Your task to perform on an android device: turn off improve location accuracy Image 0: 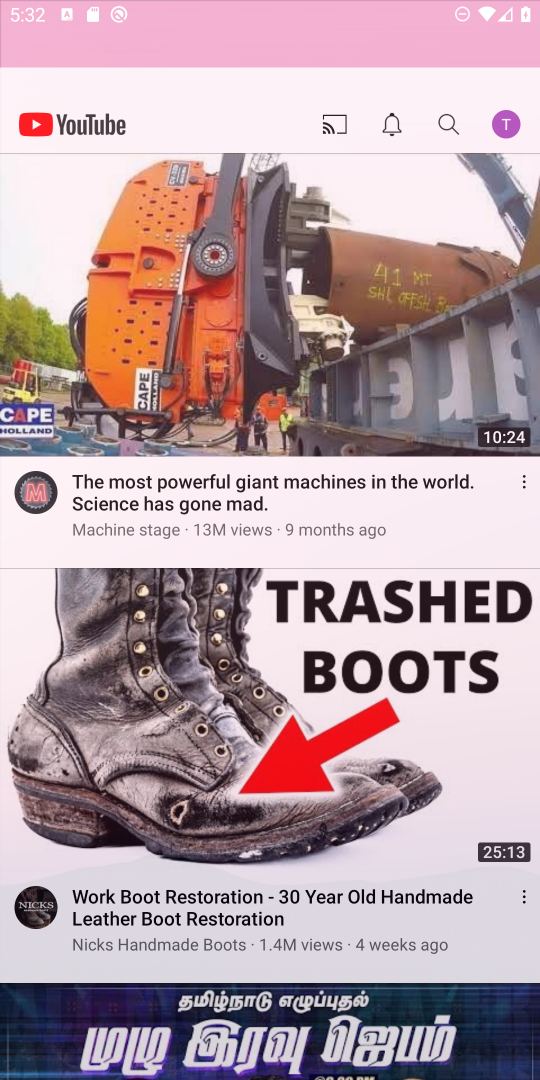
Step 0: drag from (373, 258) to (444, 31)
Your task to perform on an android device: turn off improve location accuracy Image 1: 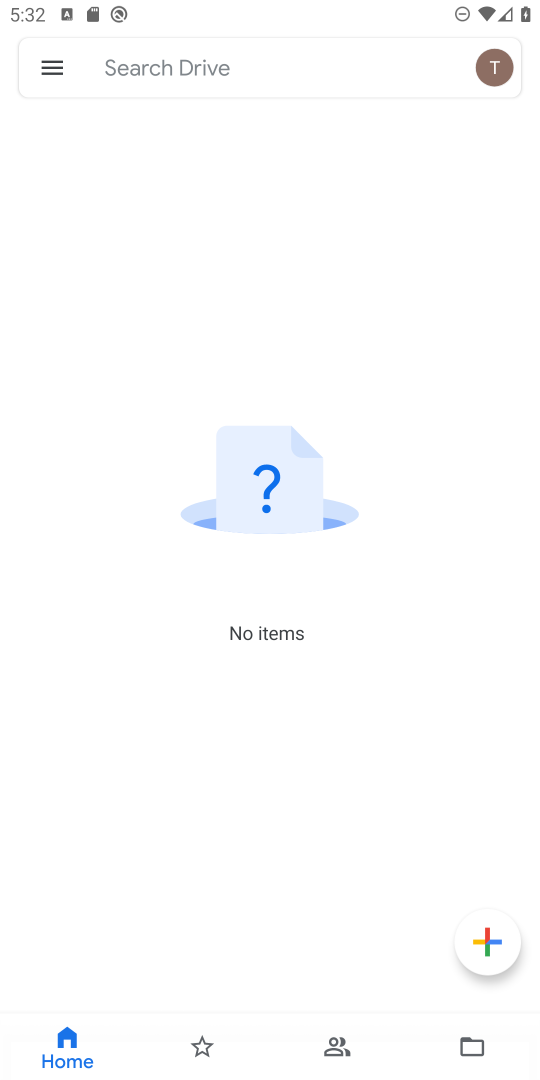
Step 1: press home button
Your task to perform on an android device: turn off improve location accuracy Image 2: 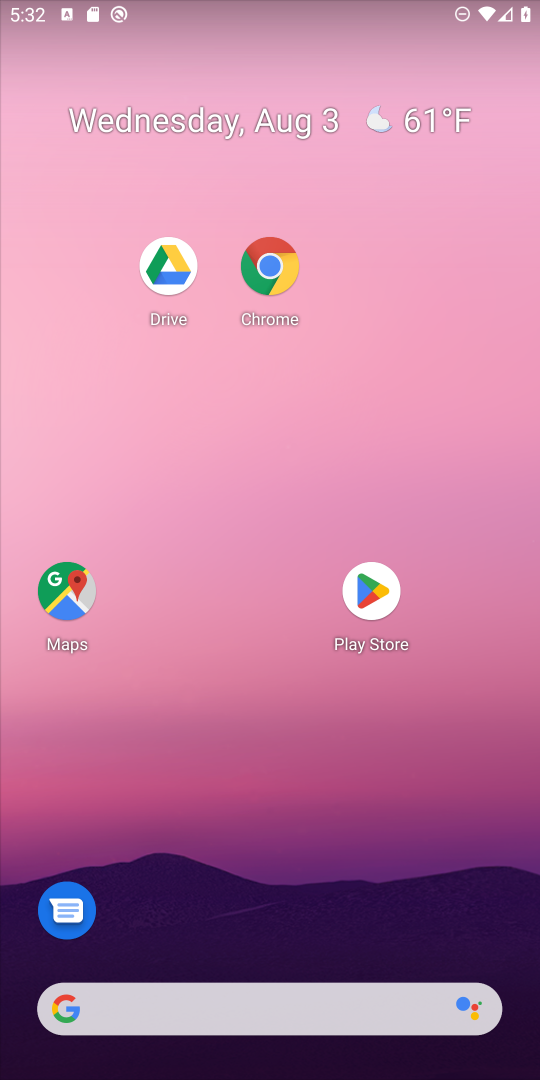
Step 2: drag from (321, 995) to (397, 5)
Your task to perform on an android device: turn off improve location accuracy Image 3: 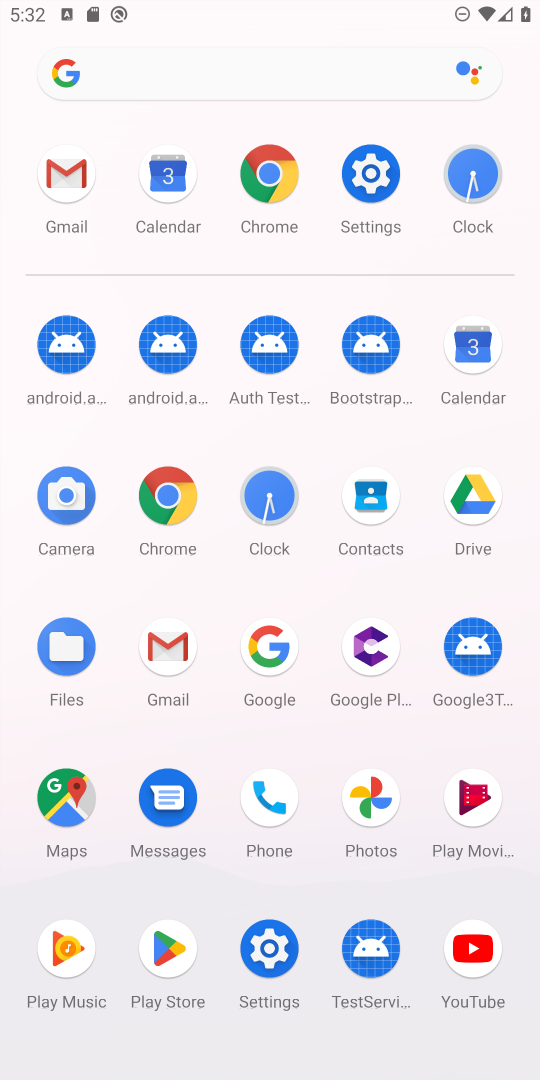
Step 3: click (380, 178)
Your task to perform on an android device: turn off improve location accuracy Image 4: 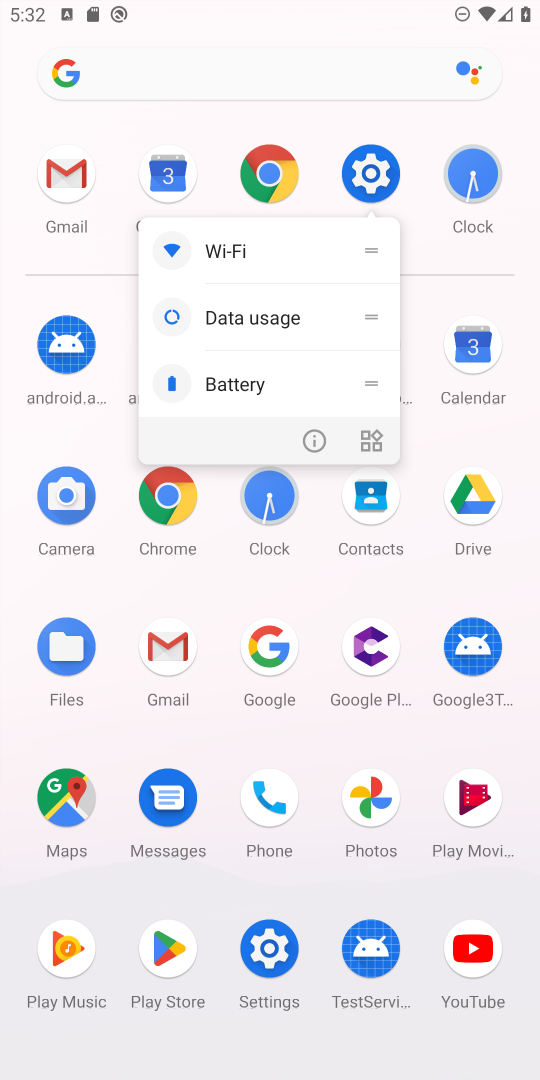
Step 4: click (371, 172)
Your task to perform on an android device: turn off improve location accuracy Image 5: 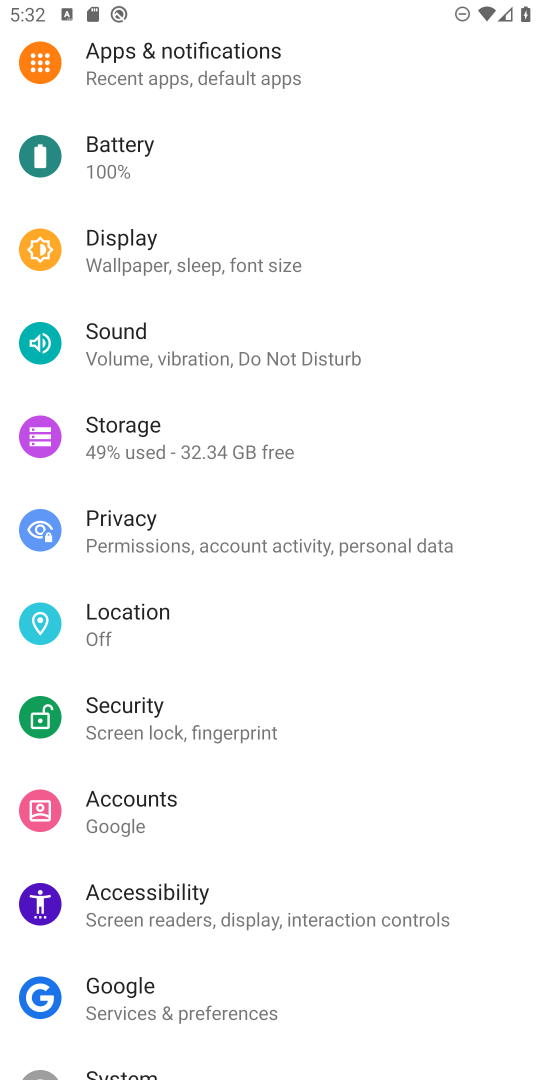
Step 5: click (155, 627)
Your task to perform on an android device: turn off improve location accuracy Image 6: 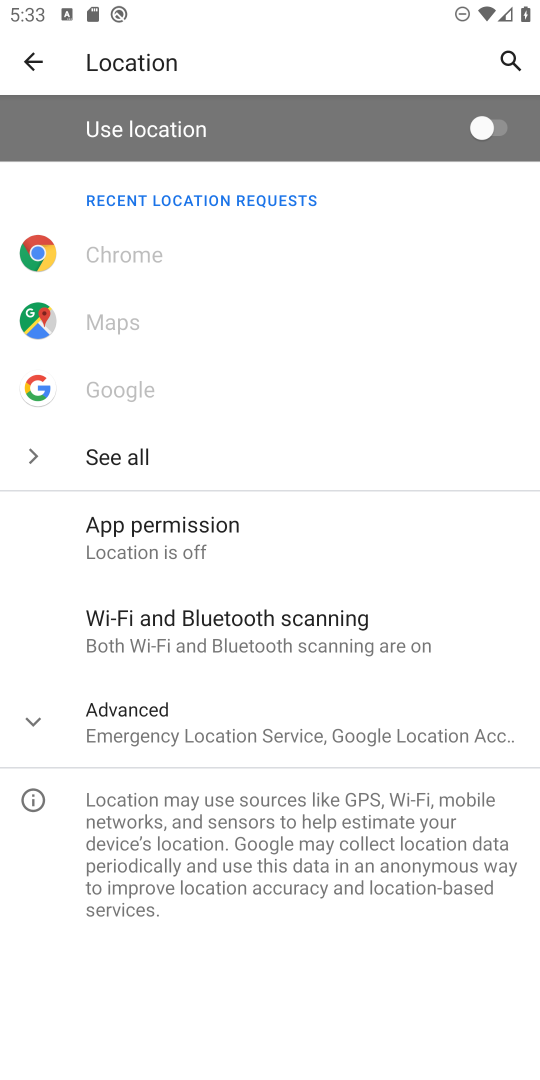
Step 6: click (228, 715)
Your task to perform on an android device: turn off improve location accuracy Image 7: 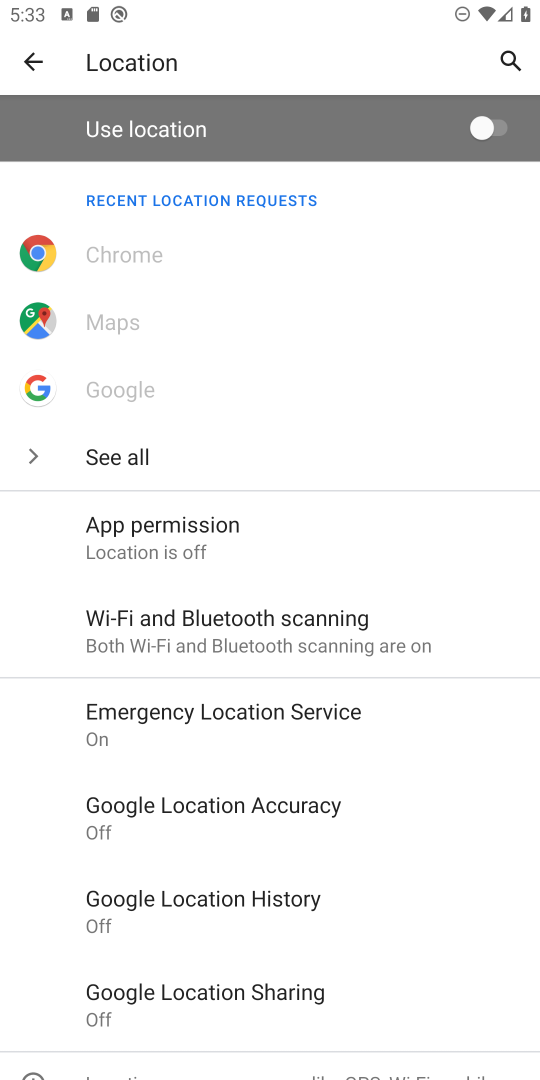
Step 7: click (275, 812)
Your task to perform on an android device: turn off improve location accuracy Image 8: 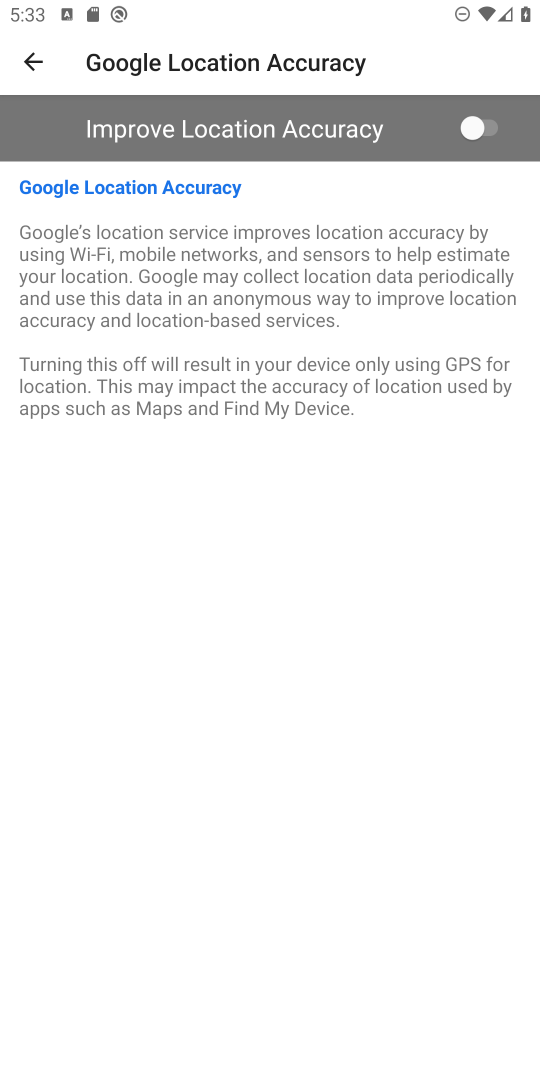
Step 8: task complete